Your task to perform on an android device: What's the weather like inToronto? Image 0: 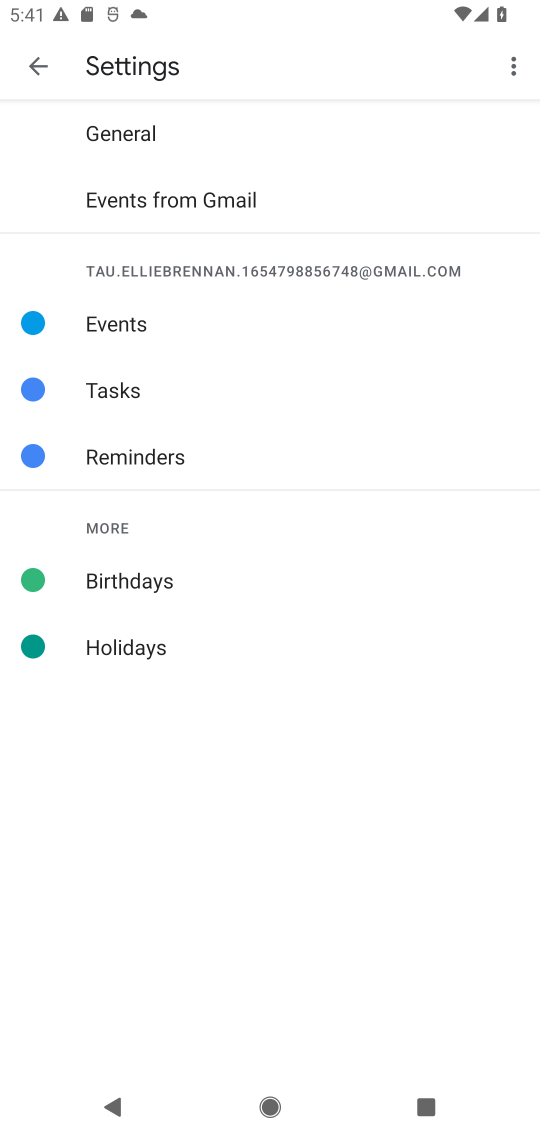
Step 0: press home button
Your task to perform on an android device: What's the weather like inToronto? Image 1: 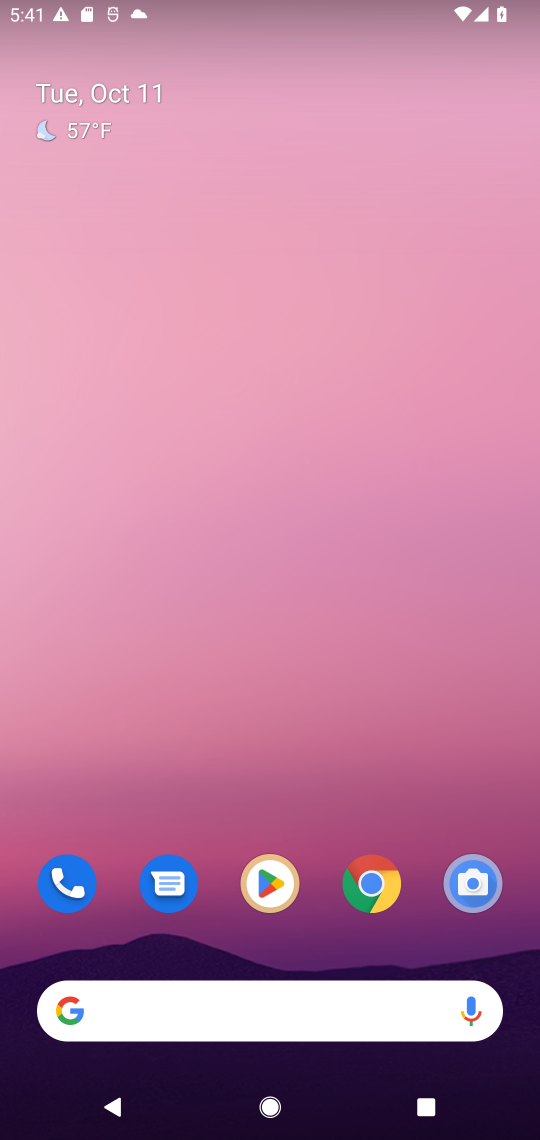
Step 1: drag from (325, 945) to (291, 149)
Your task to perform on an android device: What's the weather like inToronto? Image 2: 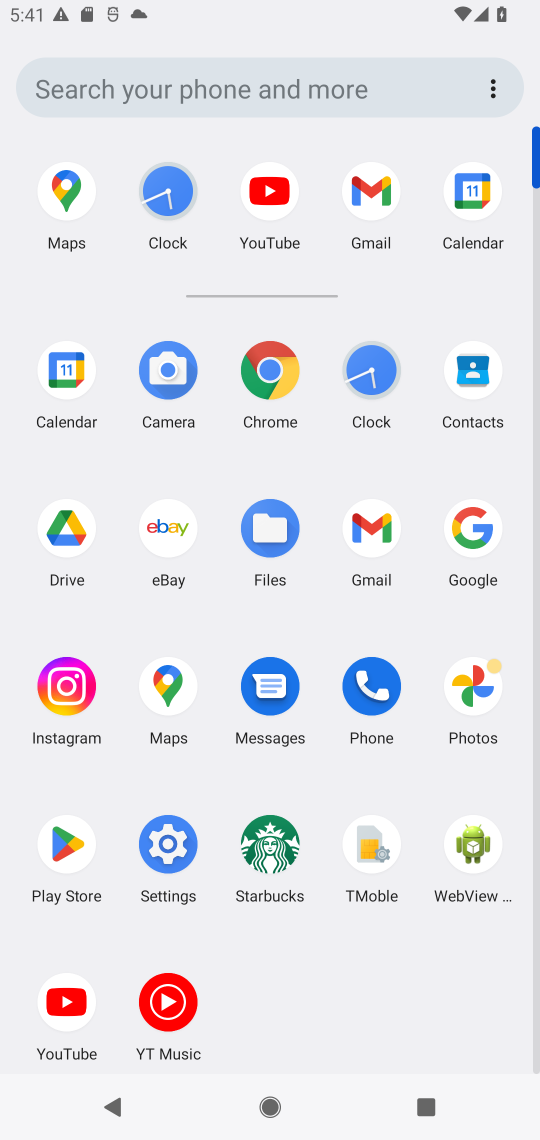
Step 2: click (264, 367)
Your task to perform on an android device: What's the weather like inToronto? Image 3: 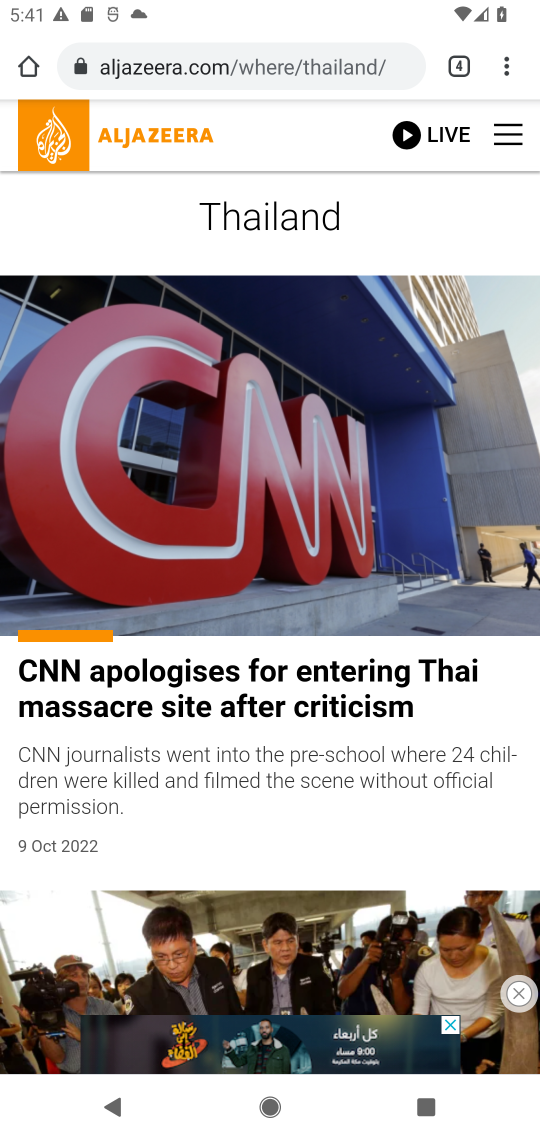
Step 3: click (238, 62)
Your task to perform on an android device: What's the weather like inToronto? Image 4: 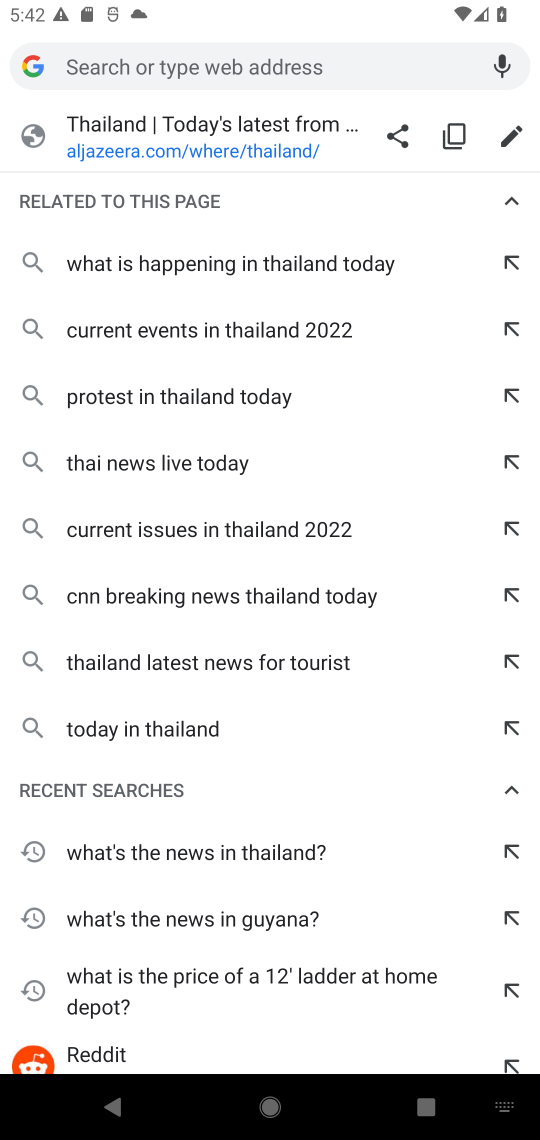
Step 4: type "What's the weather like inToronto?"
Your task to perform on an android device: What's the weather like inToronto? Image 5: 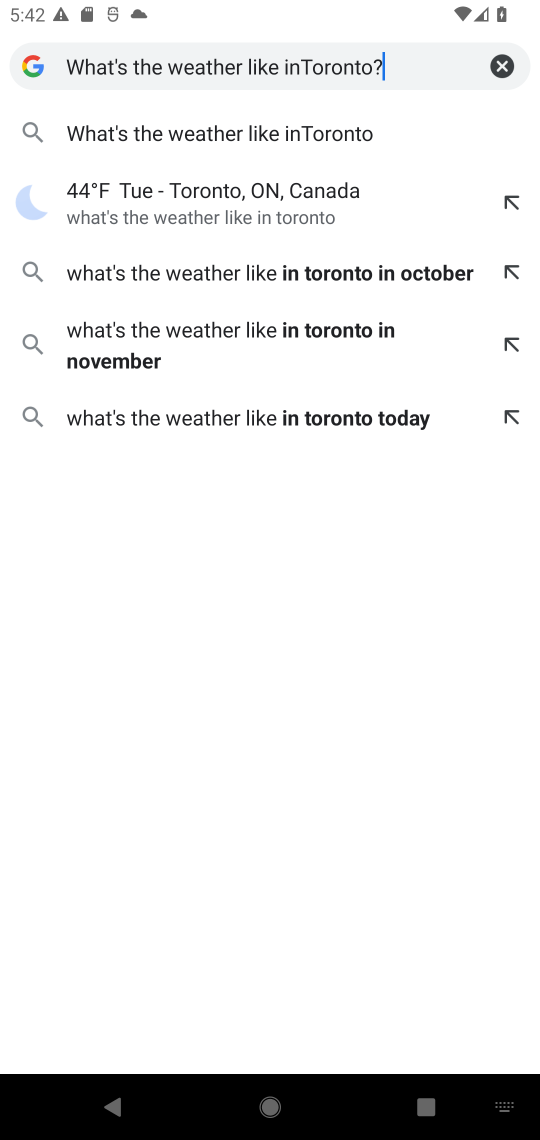
Step 5: press enter
Your task to perform on an android device: What's the weather like inToronto? Image 6: 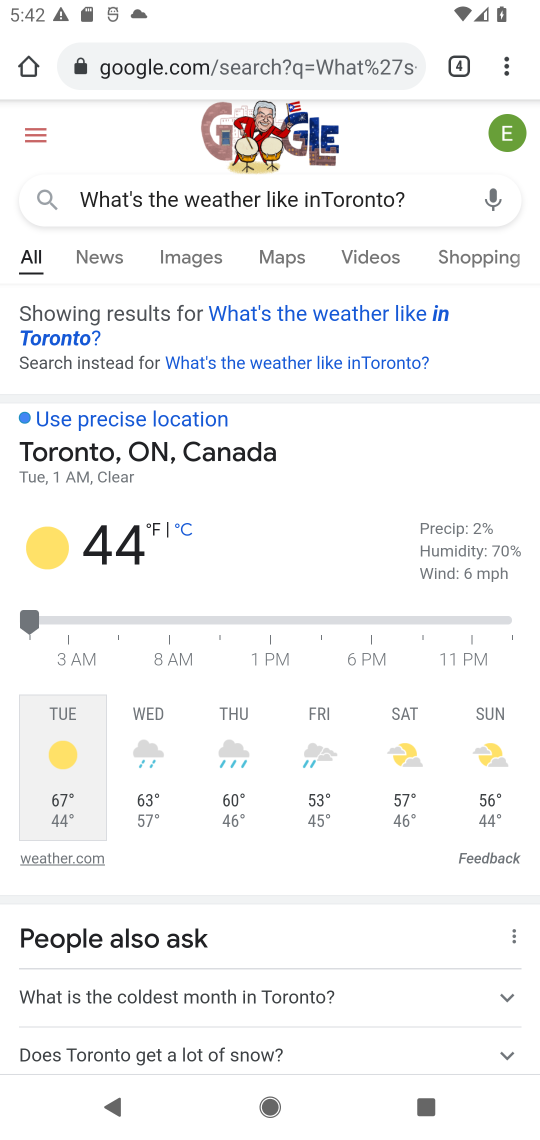
Step 6: task complete